Your task to perform on an android device: find snoozed emails in the gmail app Image 0: 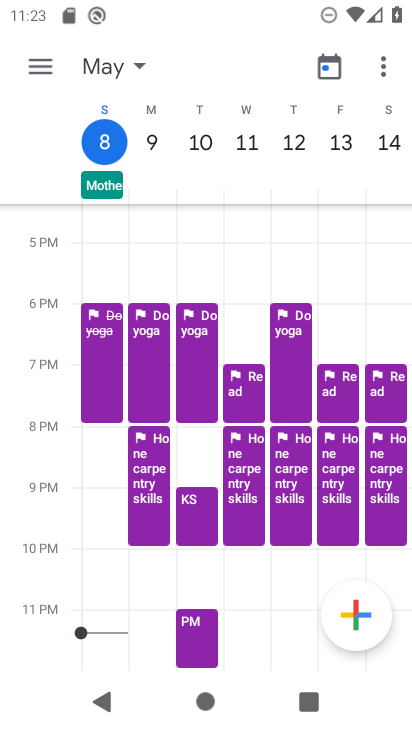
Step 0: press home button
Your task to perform on an android device: find snoozed emails in the gmail app Image 1: 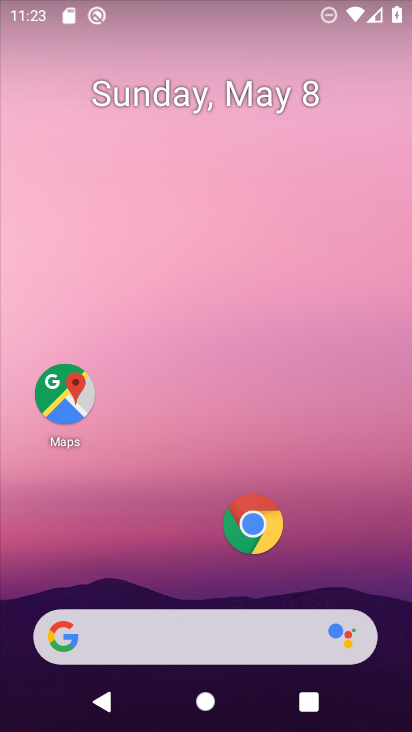
Step 1: drag from (170, 426) to (161, 29)
Your task to perform on an android device: find snoozed emails in the gmail app Image 2: 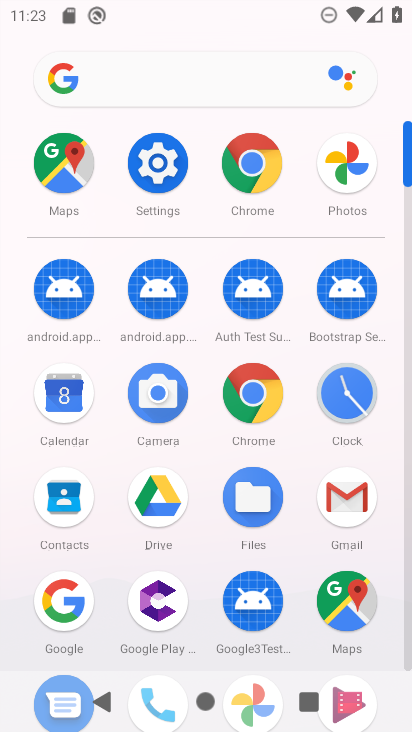
Step 2: click (345, 489)
Your task to perform on an android device: find snoozed emails in the gmail app Image 3: 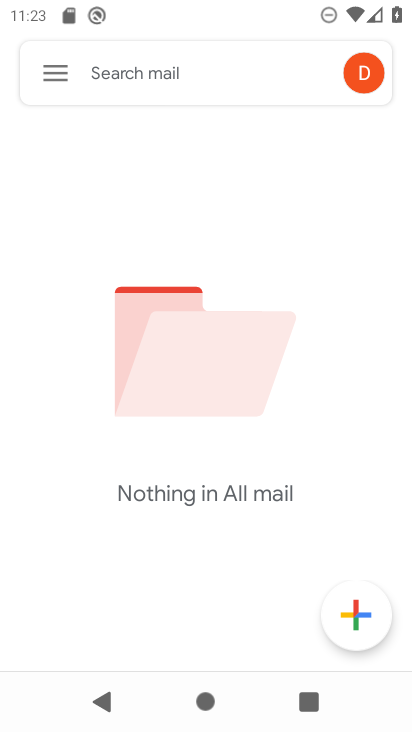
Step 3: click (63, 70)
Your task to perform on an android device: find snoozed emails in the gmail app Image 4: 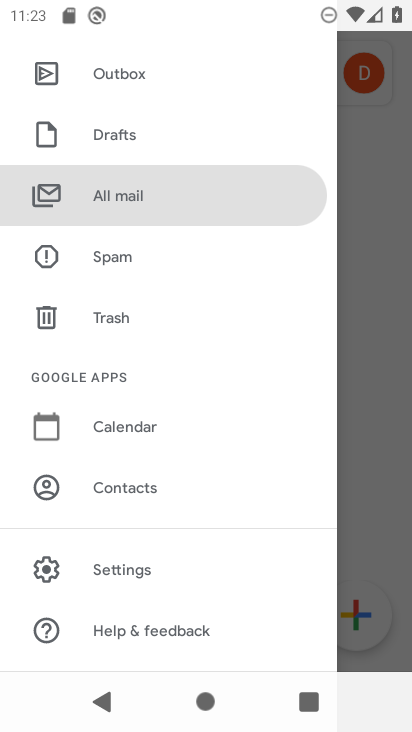
Step 4: drag from (210, 298) to (222, 651)
Your task to perform on an android device: find snoozed emails in the gmail app Image 5: 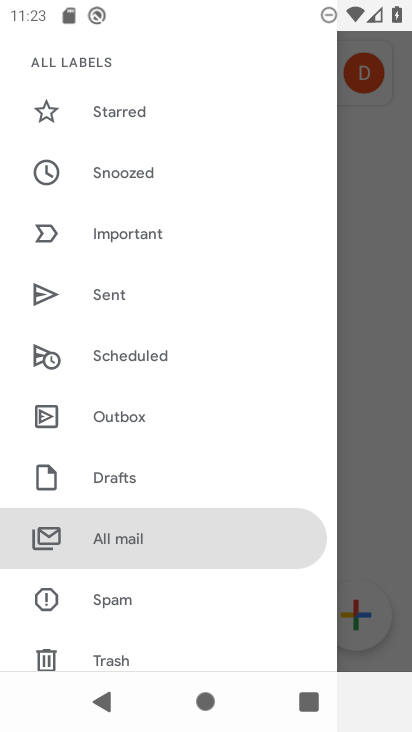
Step 5: click (162, 163)
Your task to perform on an android device: find snoozed emails in the gmail app Image 6: 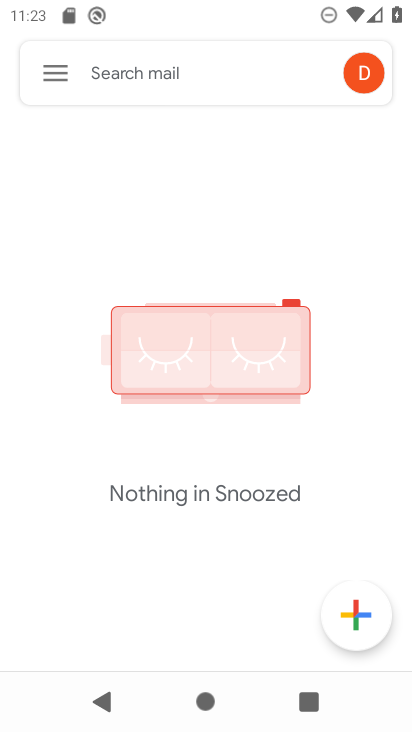
Step 6: task complete